Your task to perform on an android device: Open Google Maps and go to "Timeline" Image 0: 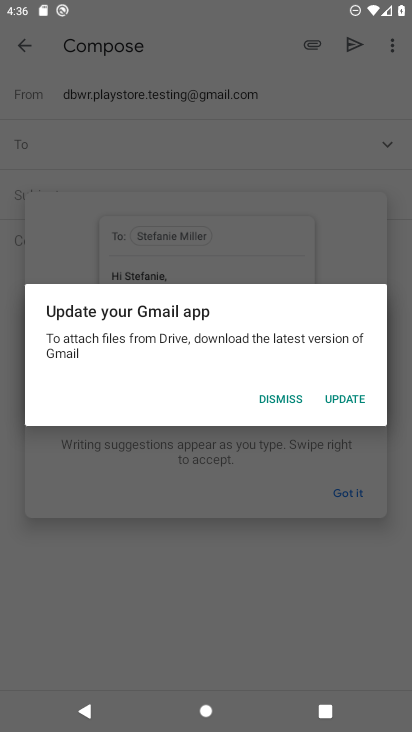
Step 0: press home button
Your task to perform on an android device: Open Google Maps and go to "Timeline" Image 1: 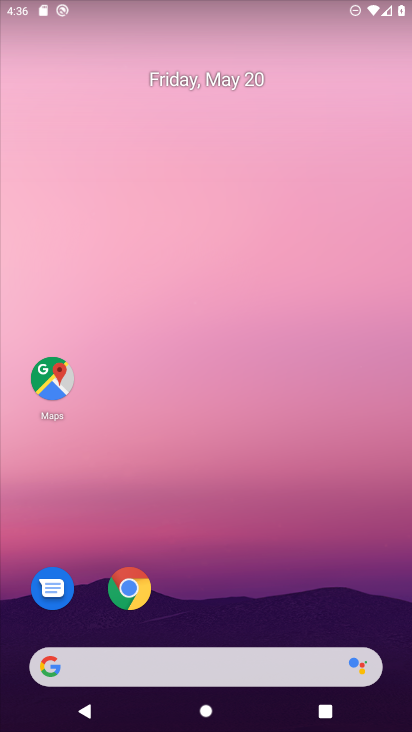
Step 1: drag from (152, 528) to (152, 183)
Your task to perform on an android device: Open Google Maps and go to "Timeline" Image 2: 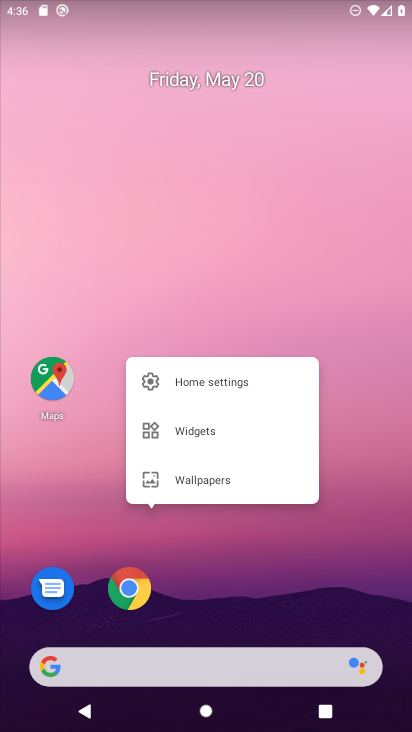
Step 2: click (322, 586)
Your task to perform on an android device: Open Google Maps and go to "Timeline" Image 3: 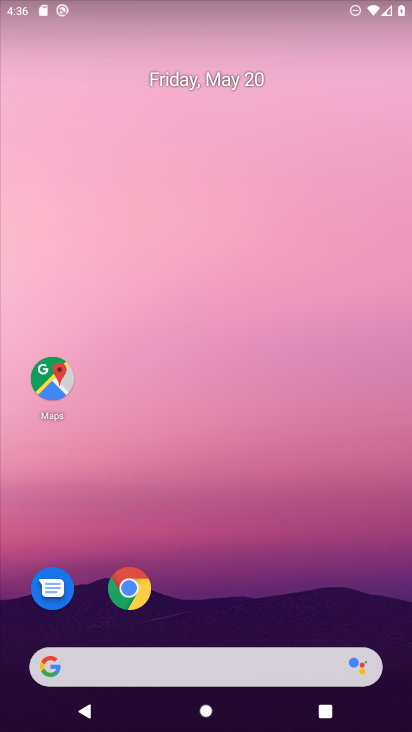
Step 3: click (37, 374)
Your task to perform on an android device: Open Google Maps and go to "Timeline" Image 4: 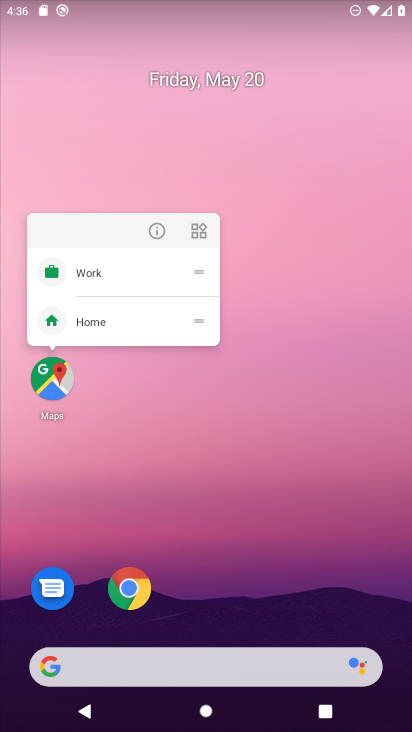
Step 4: click (36, 381)
Your task to perform on an android device: Open Google Maps and go to "Timeline" Image 5: 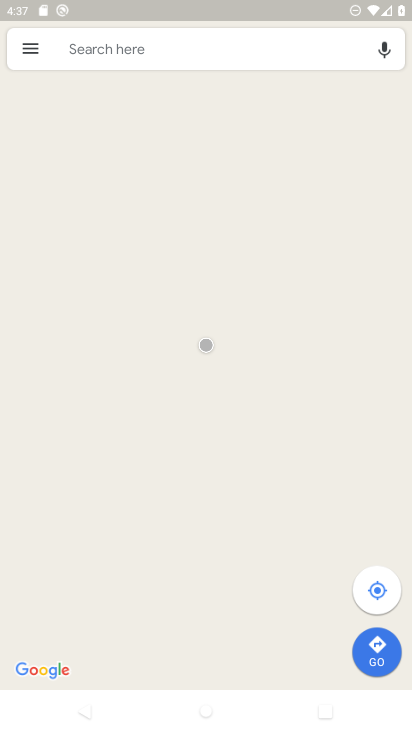
Step 5: click (23, 54)
Your task to perform on an android device: Open Google Maps and go to "Timeline" Image 6: 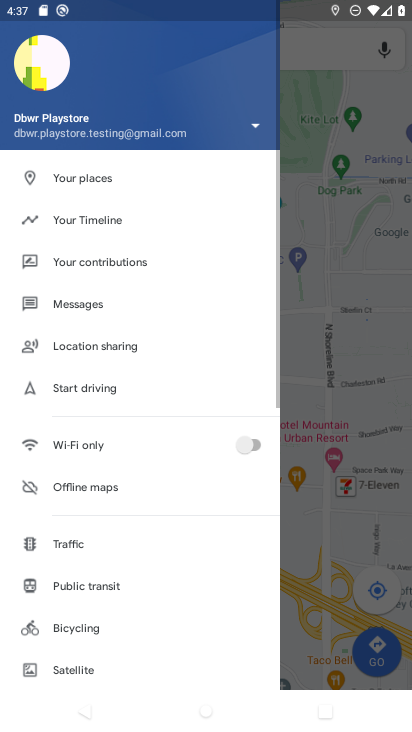
Step 6: click (106, 224)
Your task to perform on an android device: Open Google Maps and go to "Timeline" Image 7: 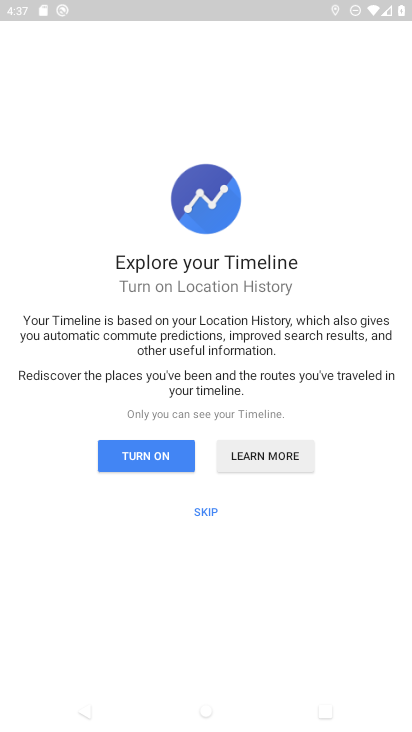
Step 7: click (205, 516)
Your task to perform on an android device: Open Google Maps and go to "Timeline" Image 8: 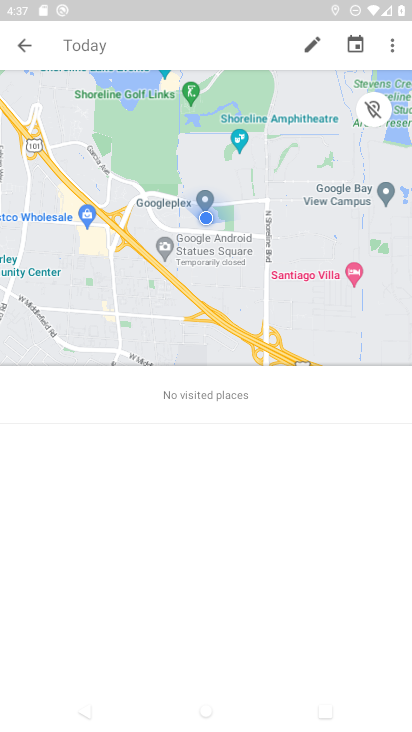
Step 8: task complete